Your task to perform on an android device: toggle wifi Image 0: 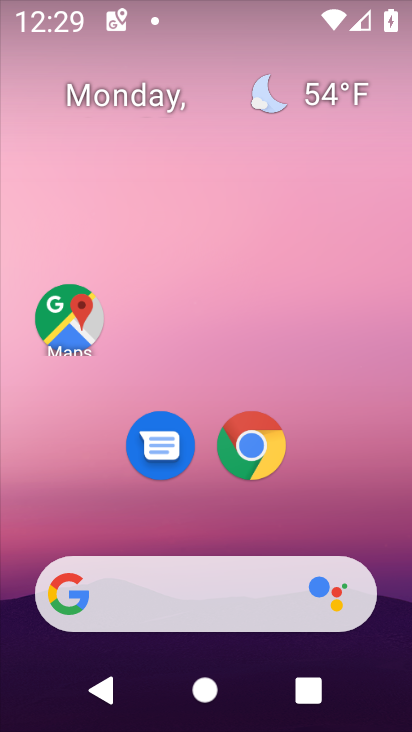
Step 0: drag from (358, 482) to (404, 118)
Your task to perform on an android device: toggle wifi Image 1: 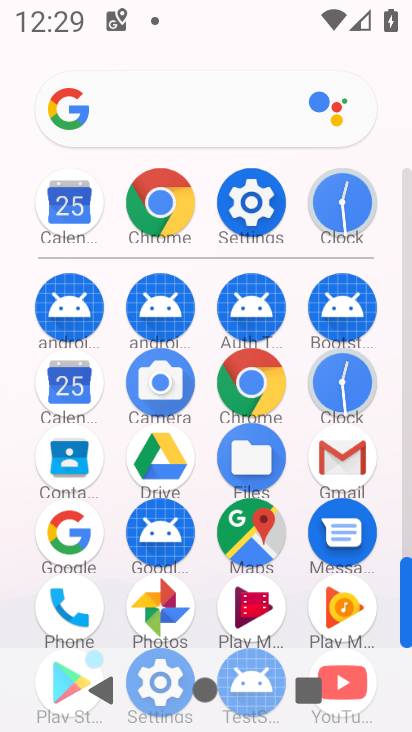
Step 1: click (247, 209)
Your task to perform on an android device: toggle wifi Image 2: 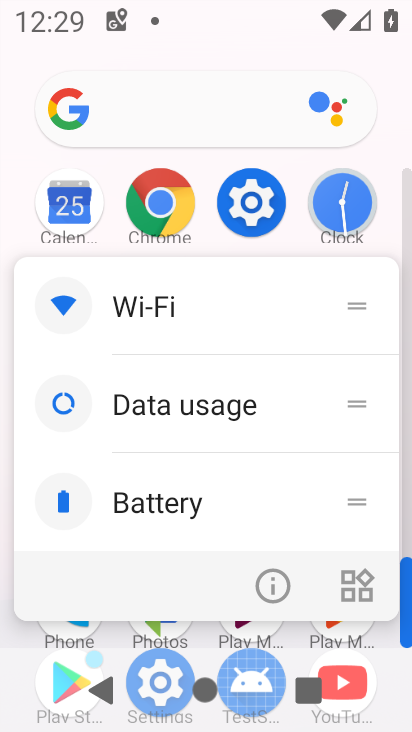
Step 2: click (252, 221)
Your task to perform on an android device: toggle wifi Image 3: 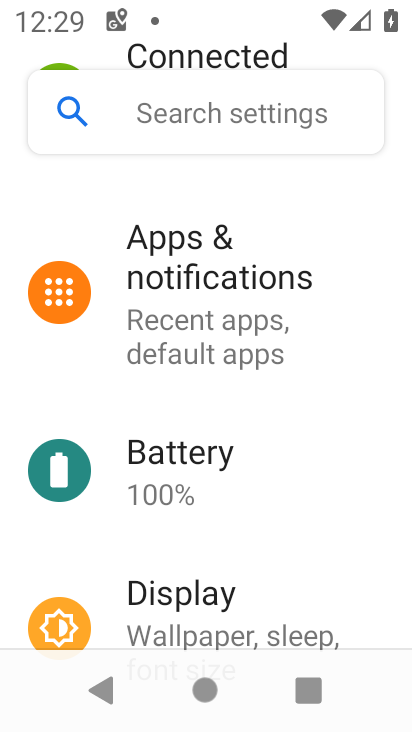
Step 3: drag from (339, 613) to (331, 336)
Your task to perform on an android device: toggle wifi Image 4: 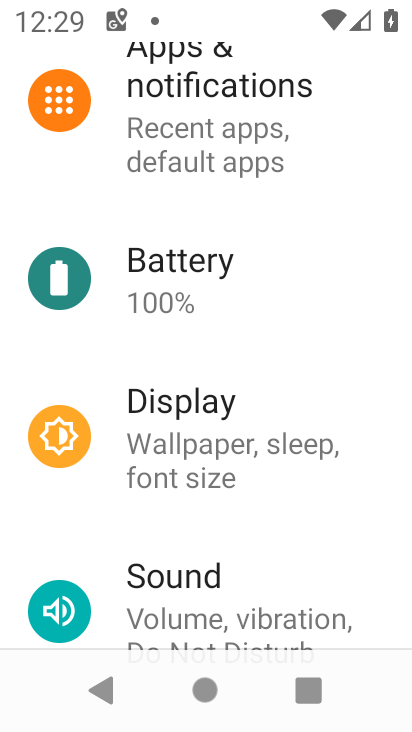
Step 4: drag from (322, 228) to (352, 610)
Your task to perform on an android device: toggle wifi Image 5: 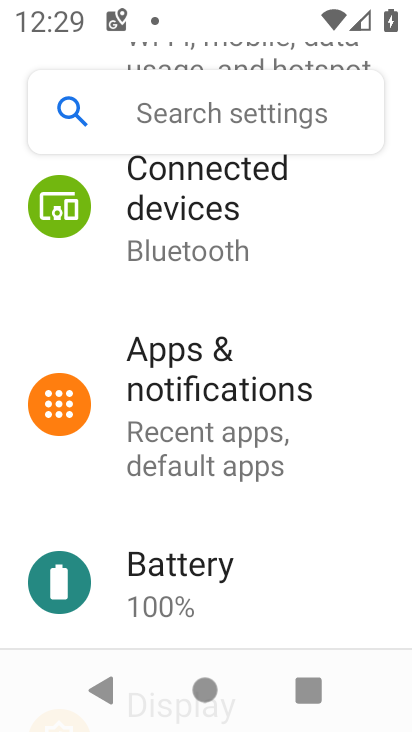
Step 5: drag from (310, 308) to (344, 569)
Your task to perform on an android device: toggle wifi Image 6: 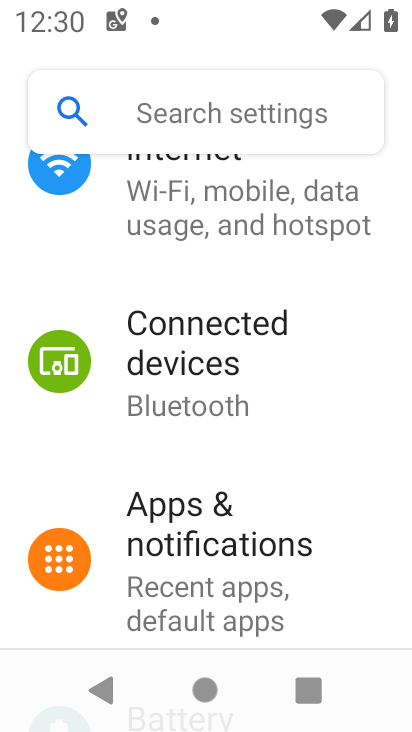
Step 6: click (232, 188)
Your task to perform on an android device: toggle wifi Image 7: 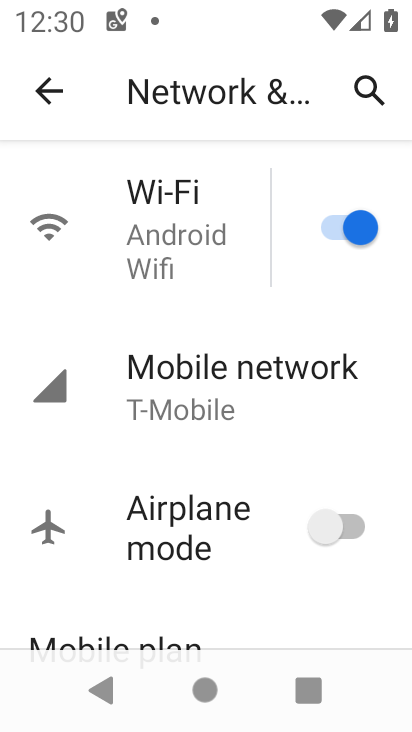
Step 7: click (335, 237)
Your task to perform on an android device: toggle wifi Image 8: 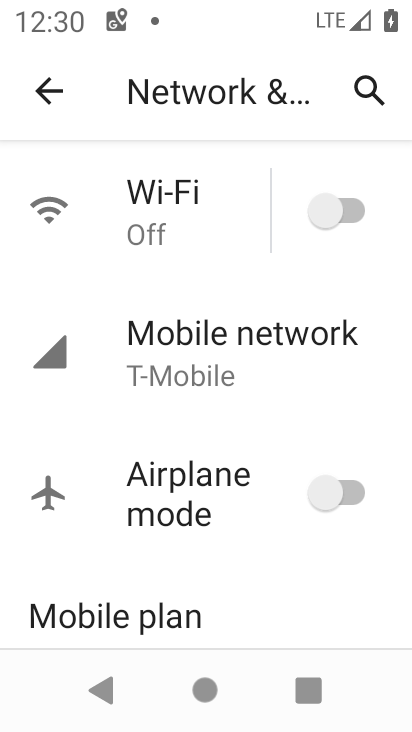
Step 8: task complete